Your task to perform on an android device: clear all cookies in the chrome app Image 0: 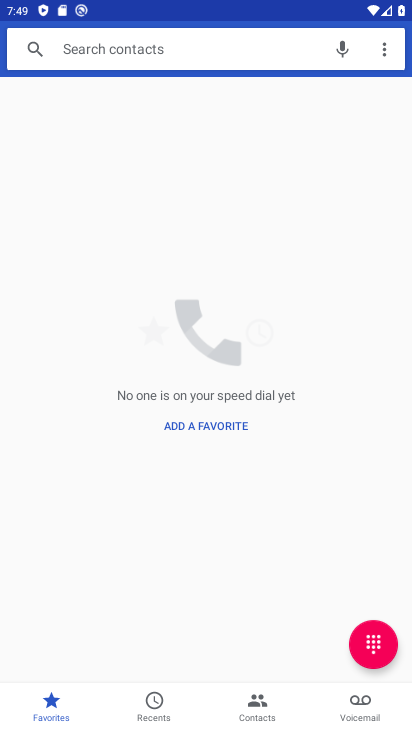
Step 0: press back button
Your task to perform on an android device: clear all cookies in the chrome app Image 1: 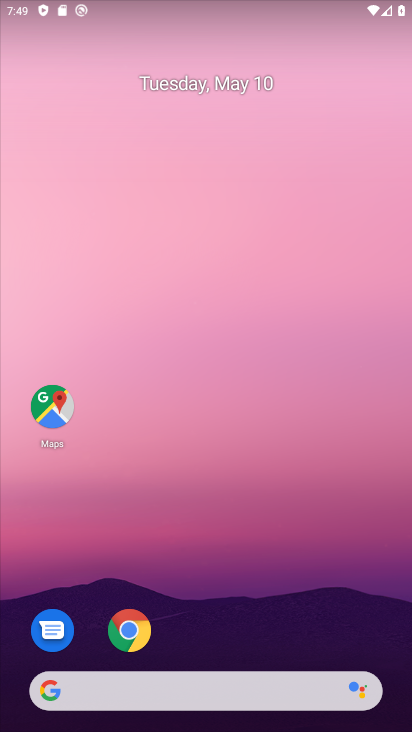
Step 1: drag from (245, 580) to (171, 1)
Your task to perform on an android device: clear all cookies in the chrome app Image 2: 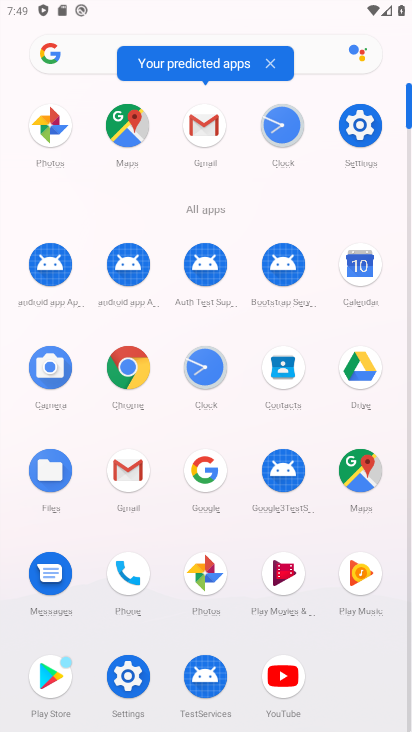
Step 2: drag from (0, 457) to (0, 183)
Your task to perform on an android device: clear all cookies in the chrome app Image 3: 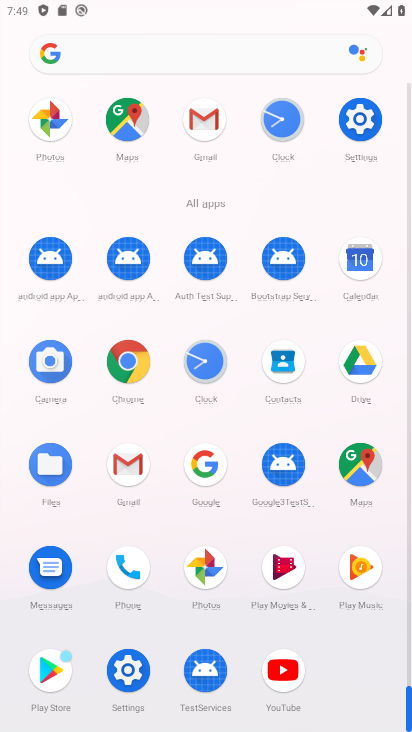
Step 3: click (126, 360)
Your task to perform on an android device: clear all cookies in the chrome app Image 4: 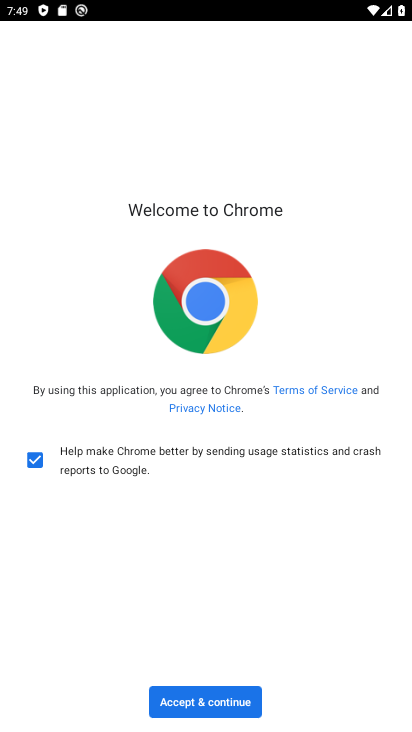
Step 4: click (214, 692)
Your task to perform on an android device: clear all cookies in the chrome app Image 5: 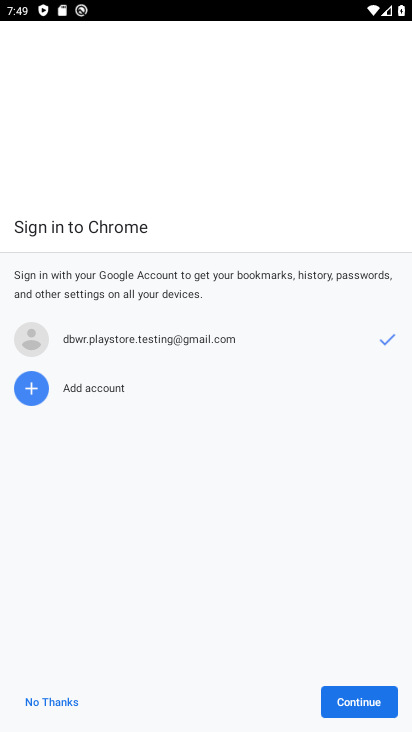
Step 5: click (358, 699)
Your task to perform on an android device: clear all cookies in the chrome app Image 6: 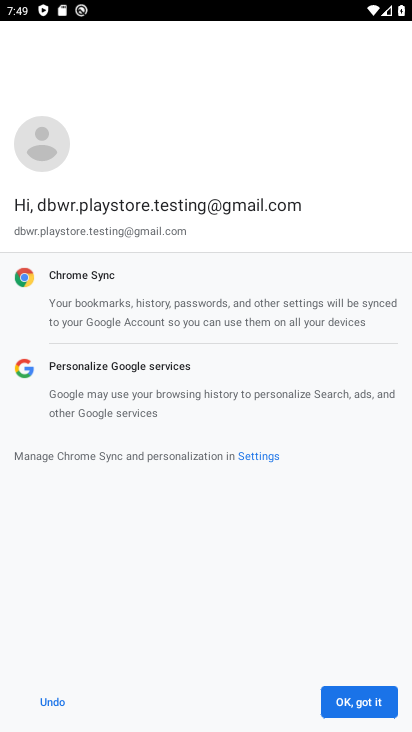
Step 6: click (359, 697)
Your task to perform on an android device: clear all cookies in the chrome app Image 7: 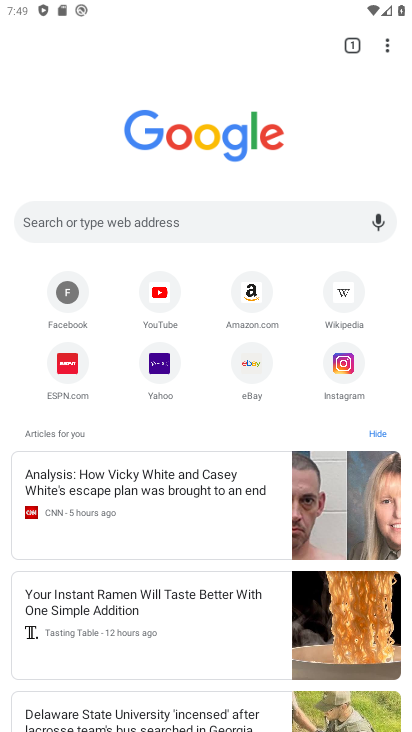
Step 7: drag from (390, 43) to (224, 382)
Your task to perform on an android device: clear all cookies in the chrome app Image 8: 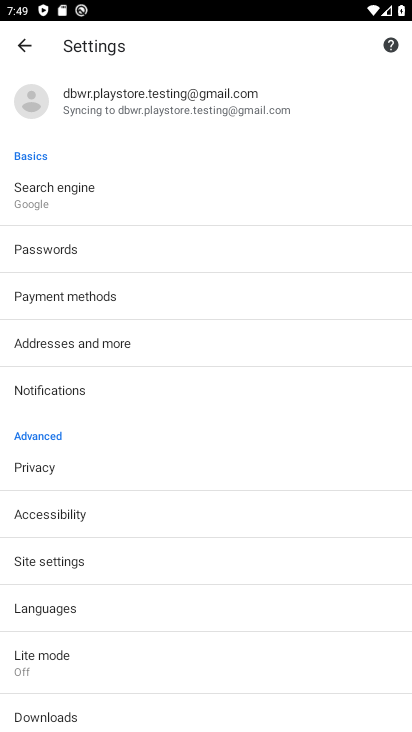
Step 8: drag from (155, 626) to (165, 194)
Your task to perform on an android device: clear all cookies in the chrome app Image 9: 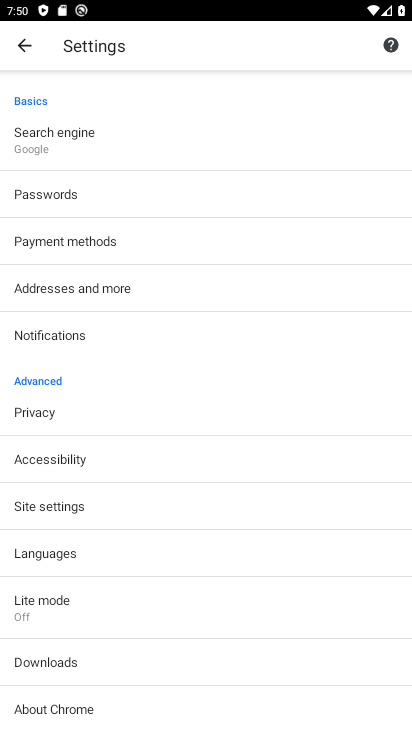
Step 9: drag from (190, 523) to (212, 141)
Your task to perform on an android device: clear all cookies in the chrome app Image 10: 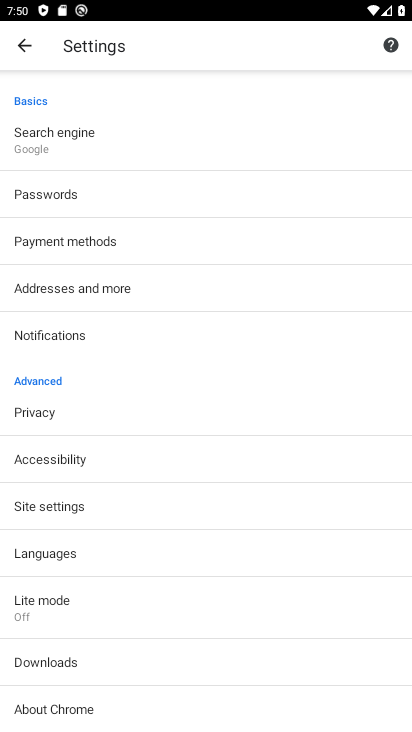
Step 10: click (67, 415)
Your task to perform on an android device: clear all cookies in the chrome app Image 11: 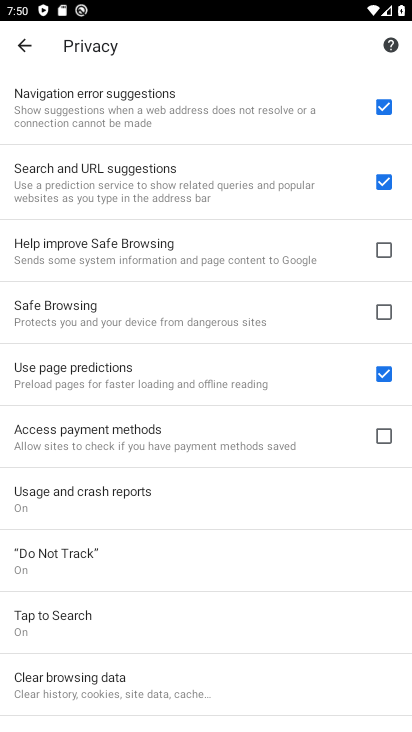
Step 11: click (171, 694)
Your task to perform on an android device: clear all cookies in the chrome app Image 12: 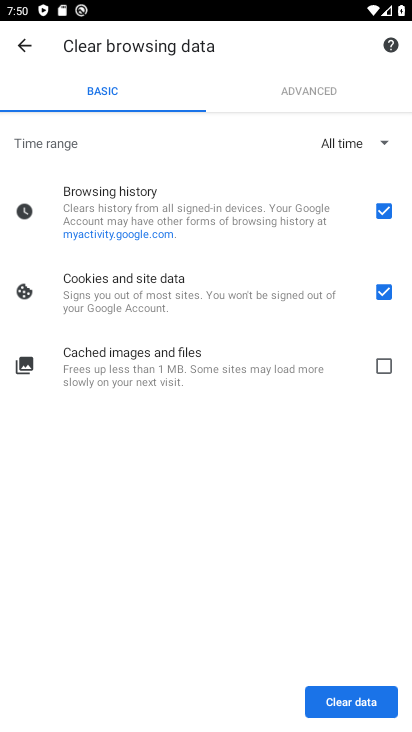
Step 12: click (375, 208)
Your task to perform on an android device: clear all cookies in the chrome app Image 13: 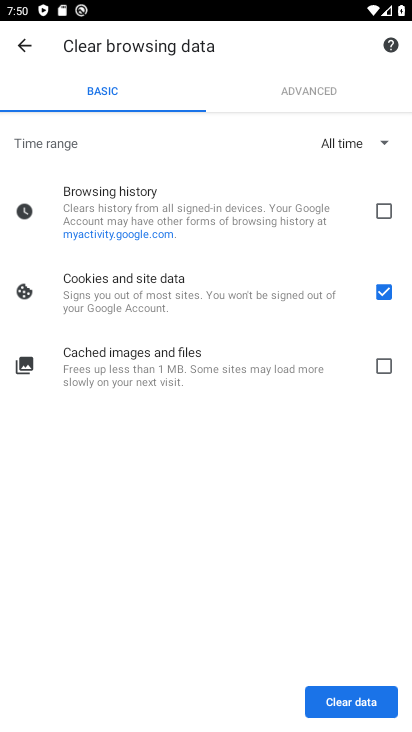
Step 13: click (364, 688)
Your task to perform on an android device: clear all cookies in the chrome app Image 14: 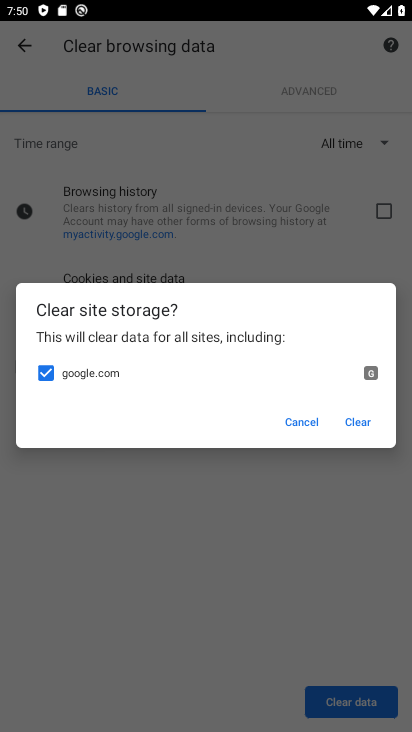
Step 14: click (363, 412)
Your task to perform on an android device: clear all cookies in the chrome app Image 15: 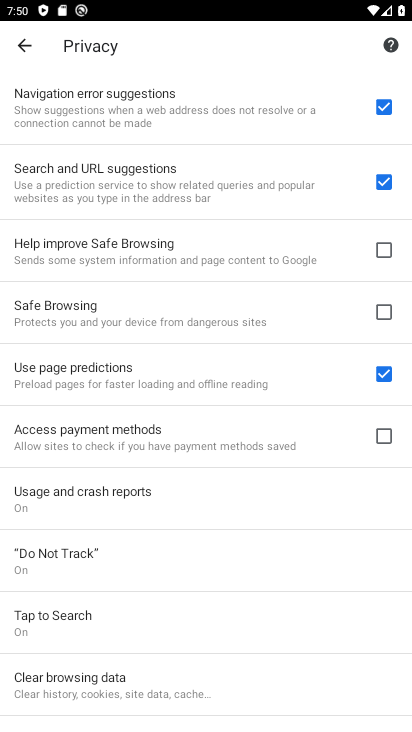
Step 15: task complete